Your task to perform on an android device: change text size in settings app Image 0: 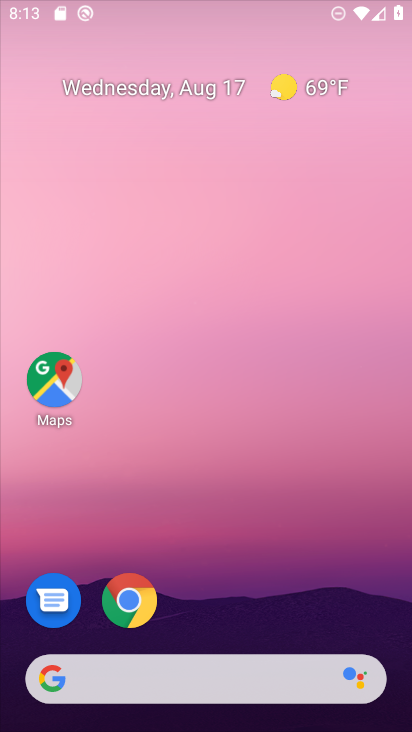
Step 0: press home button
Your task to perform on an android device: change text size in settings app Image 1: 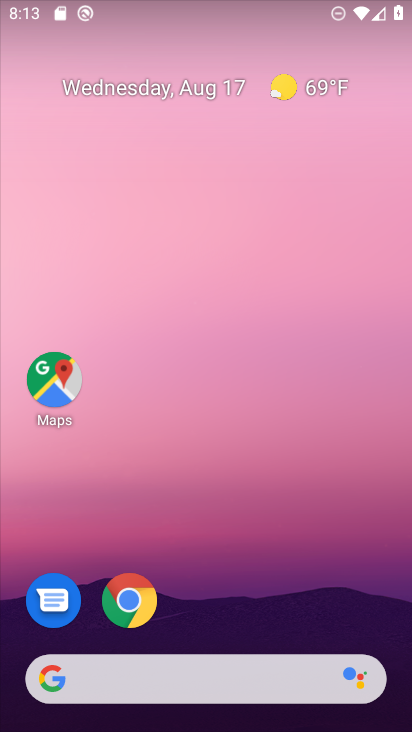
Step 1: press home button
Your task to perform on an android device: change text size in settings app Image 2: 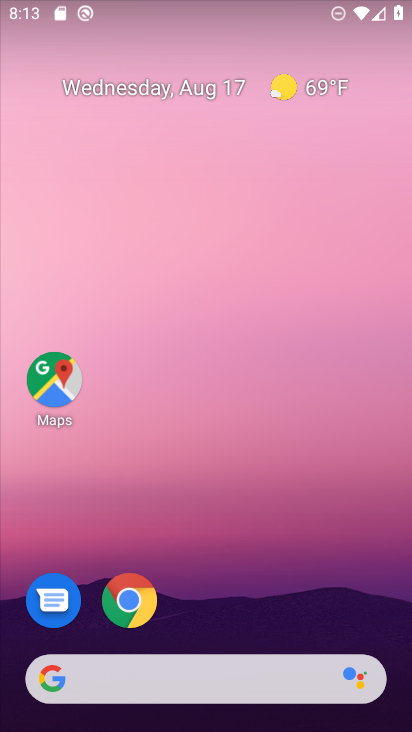
Step 2: drag from (272, 603) to (195, 37)
Your task to perform on an android device: change text size in settings app Image 3: 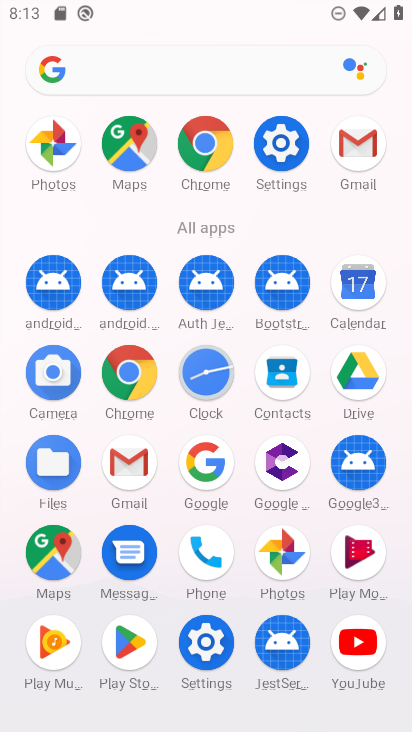
Step 3: click (285, 142)
Your task to perform on an android device: change text size in settings app Image 4: 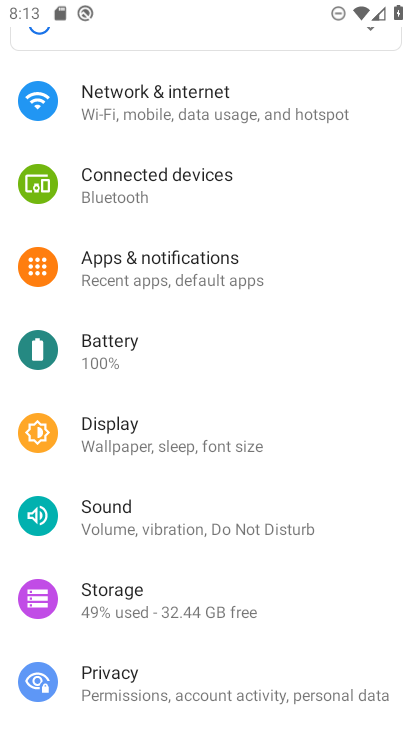
Step 4: click (118, 443)
Your task to perform on an android device: change text size in settings app Image 5: 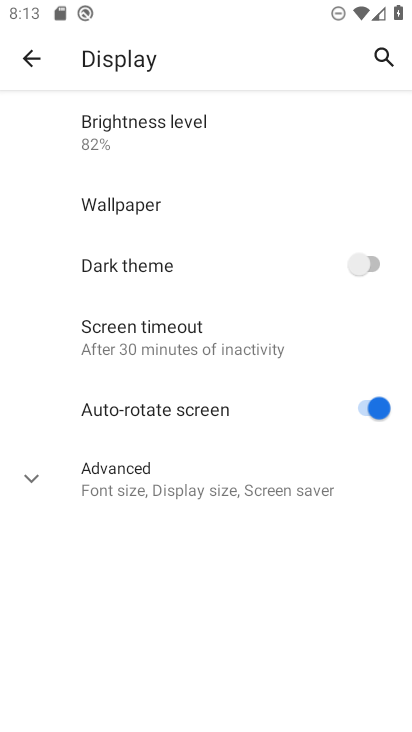
Step 5: click (103, 475)
Your task to perform on an android device: change text size in settings app Image 6: 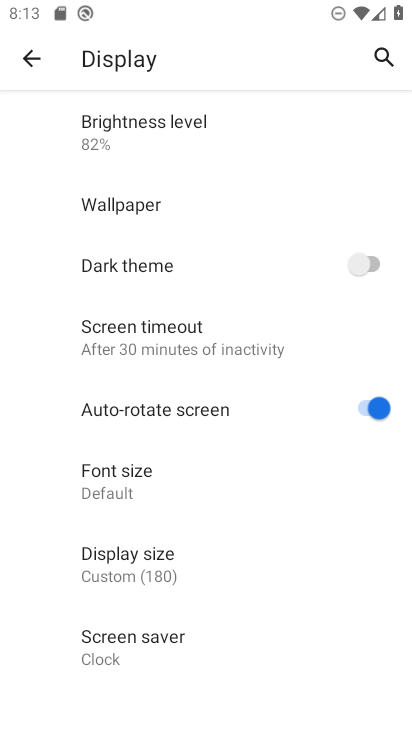
Step 6: click (208, 482)
Your task to perform on an android device: change text size in settings app Image 7: 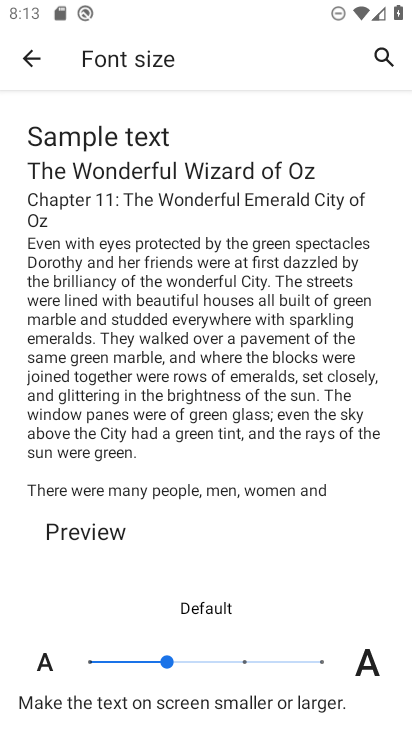
Step 7: click (235, 655)
Your task to perform on an android device: change text size in settings app Image 8: 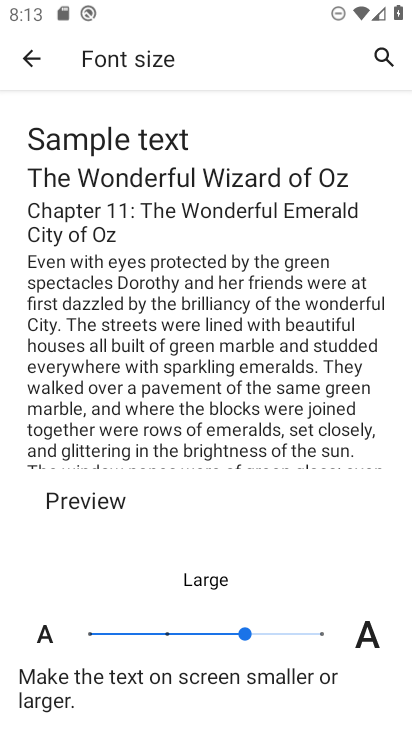
Step 8: task complete